Your task to perform on an android device: Open Google Chrome and open the bookmarks view Image 0: 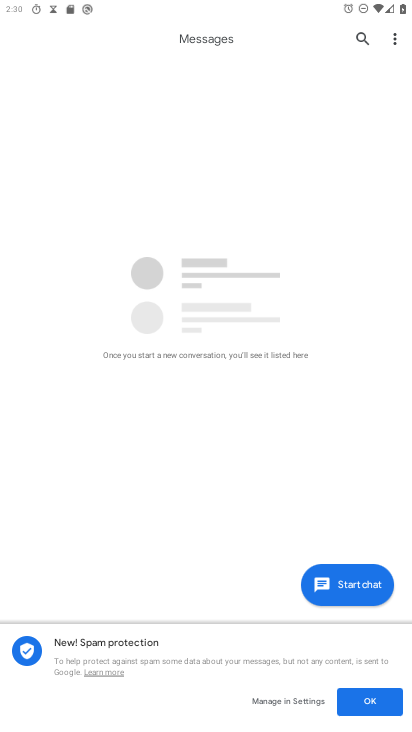
Step 0: press home button
Your task to perform on an android device: Open Google Chrome and open the bookmarks view Image 1: 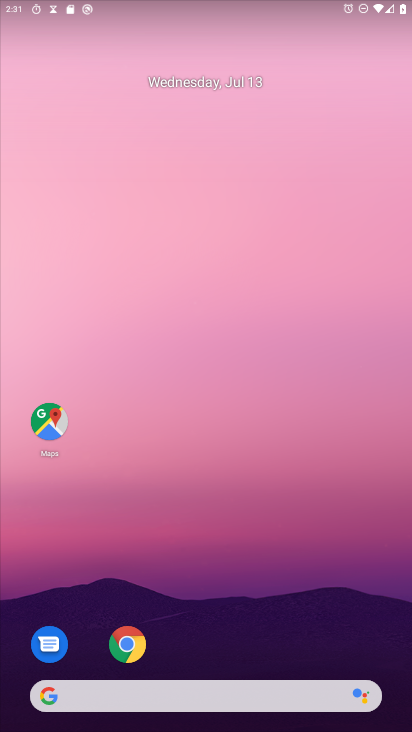
Step 1: click (140, 648)
Your task to perform on an android device: Open Google Chrome and open the bookmarks view Image 2: 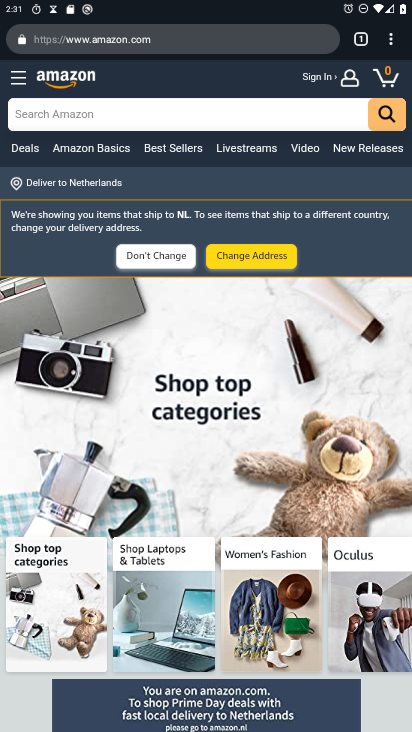
Step 2: task complete